Your task to perform on an android device: Go to ESPN.com Image 0: 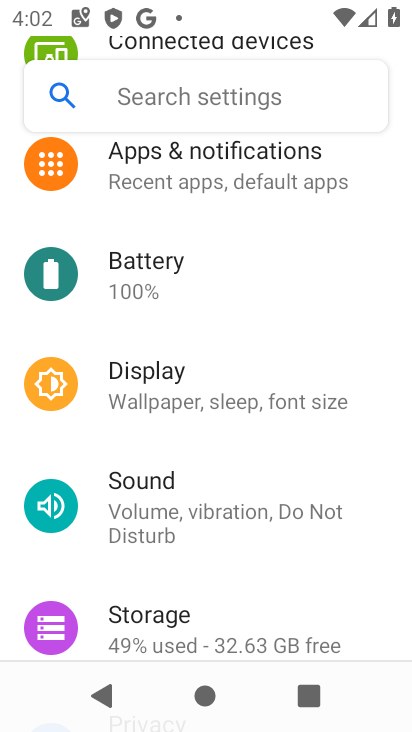
Step 0: drag from (351, 503) to (304, 151)
Your task to perform on an android device: Go to ESPN.com Image 1: 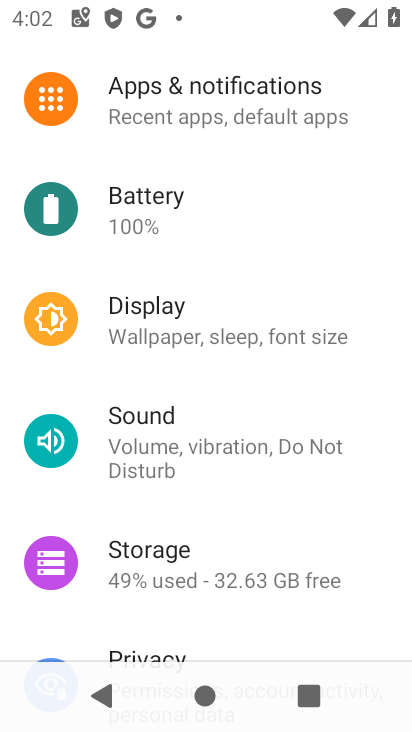
Step 1: press home button
Your task to perform on an android device: Go to ESPN.com Image 2: 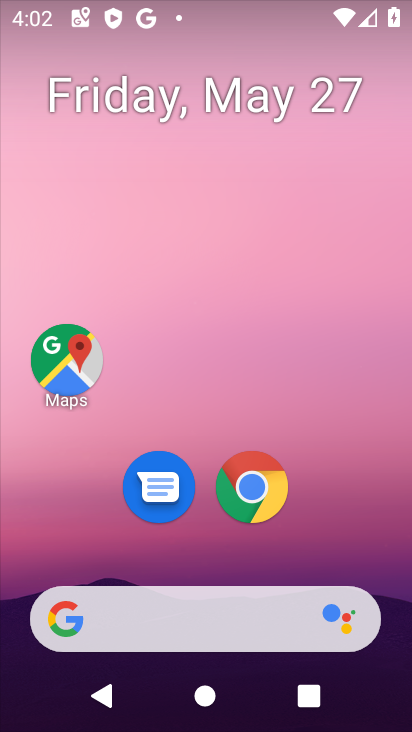
Step 2: drag from (321, 492) to (322, 115)
Your task to perform on an android device: Go to ESPN.com Image 3: 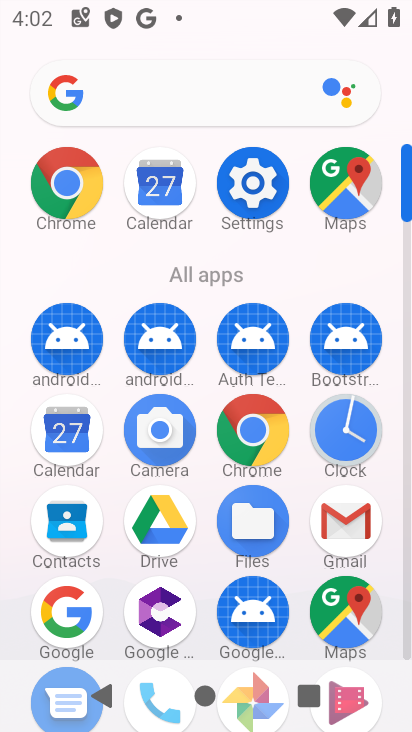
Step 3: click (78, 192)
Your task to perform on an android device: Go to ESPN.com Image 4: 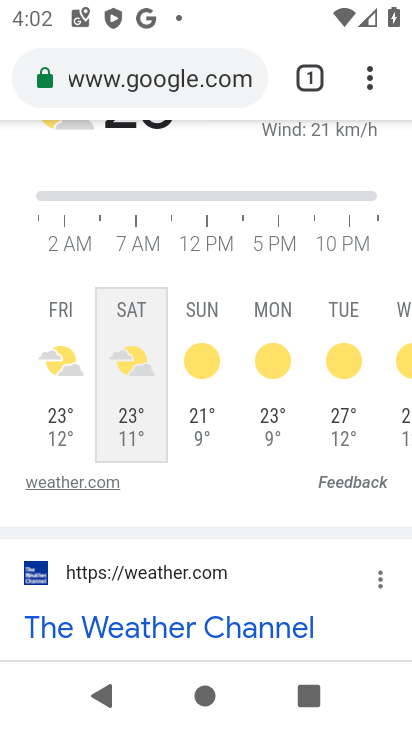
Step 4: click (209, 68)
Your task to perform on an android device: Go to ESPN.com Image 5: 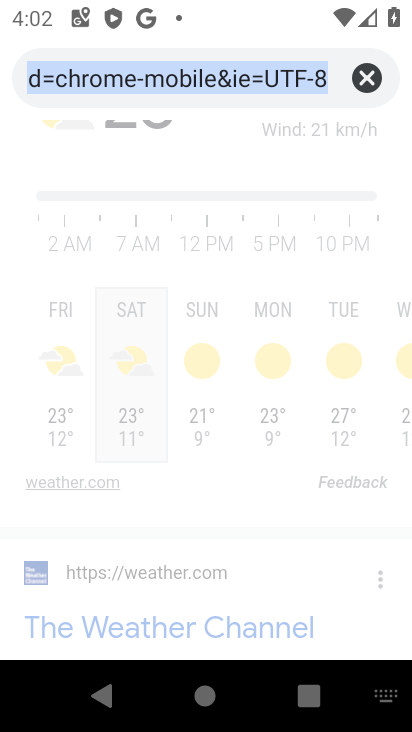
Step 5: type "espn.com"
Your task to perform on an android device: Go to ESPN.com Image 6: 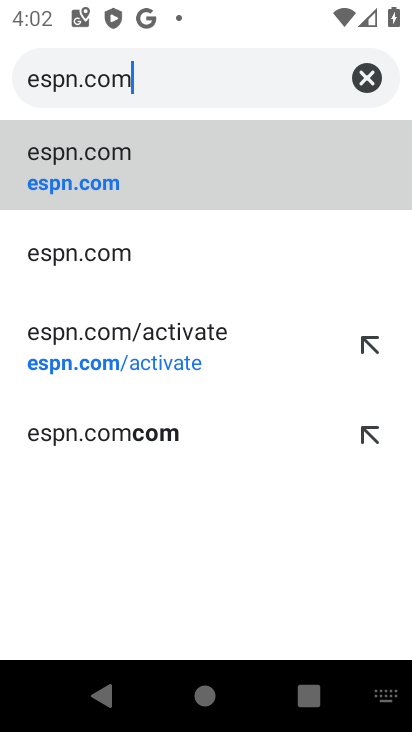
Step 6: click (98, 188)
Your task to perform on an android device: Go to ESPN.com Image 7: 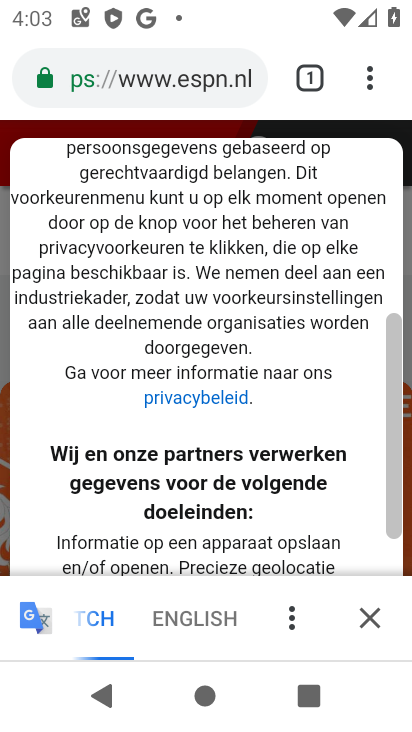
Step 7: task complete